Your task to perform on an android device: Do I have any events tomorrow? Image 0: 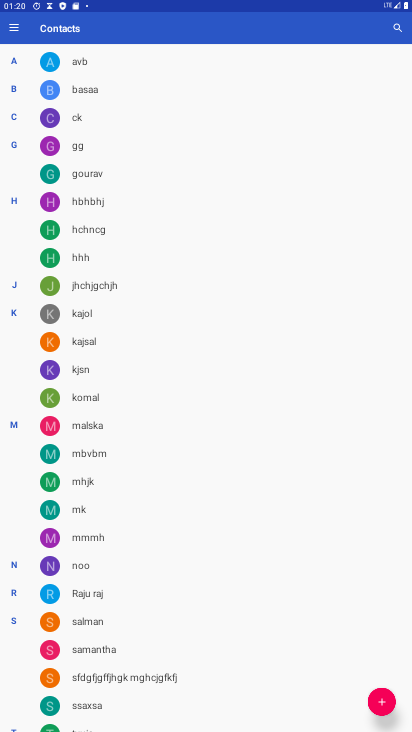
Step 0: press home button
Your task to perform on an android device: Do I have any events tomorrow? Image 1: 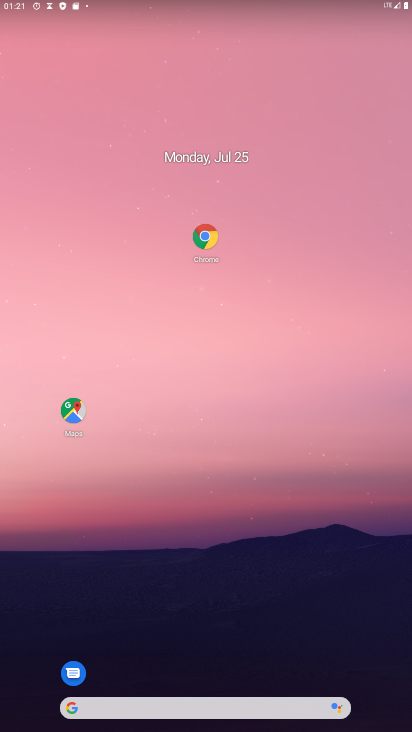
Step 1: drag from (288, 603) to (342, 95)
Your task to perform on an android device: Do I have any events tomorrow? Image 2: 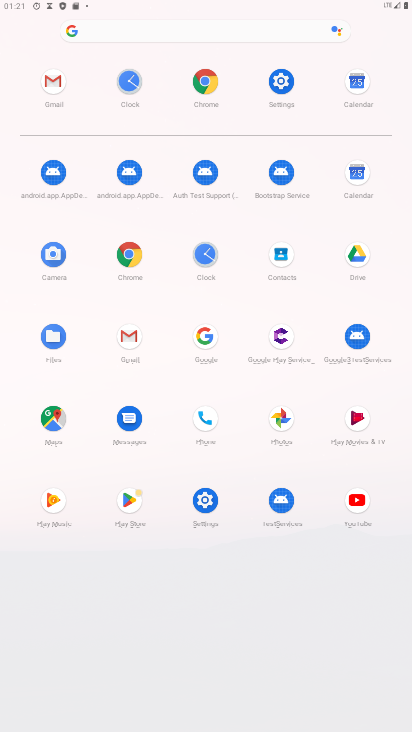
Step 2: click (359, 177)
Your task to perform on an android device: Do I have any events tomorrow? Image 3: 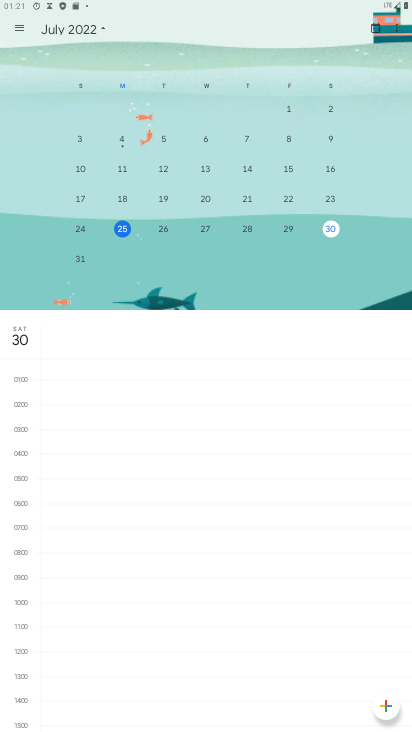
Step 3: drag from (358, 169) to (21, 230)
Your task to perform on an android device: Do I have any events tomorrow? Image 4: 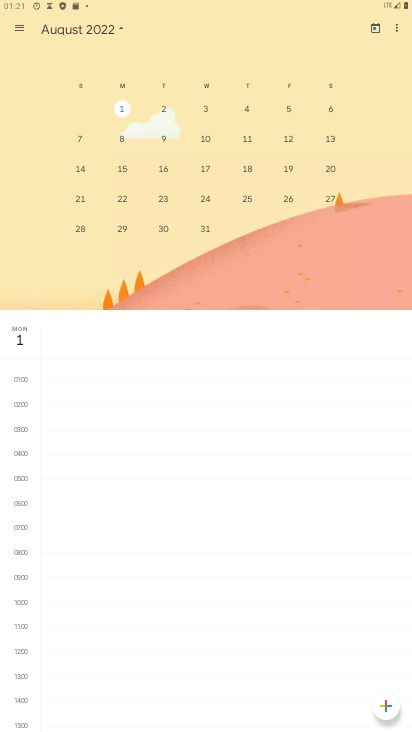
Step 4: drag from (68, 193) to (364, 155)
Your task to perform on an android device: Do I have any events tomorrow? Image 5: 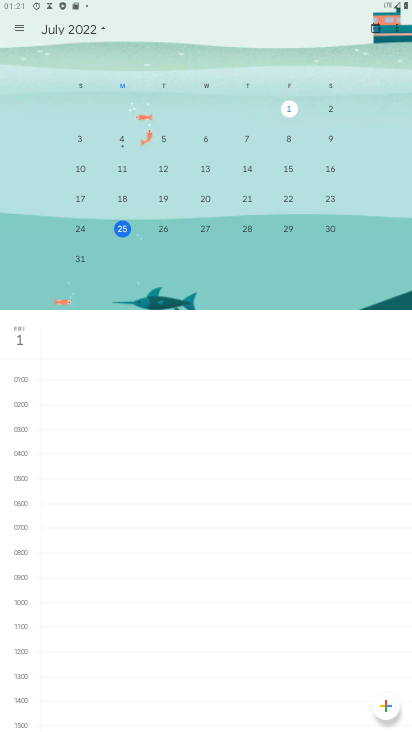
Step 5: click (119, 229)
Your task to perform on an android device: Do I have any events tomorrow? Image 6: 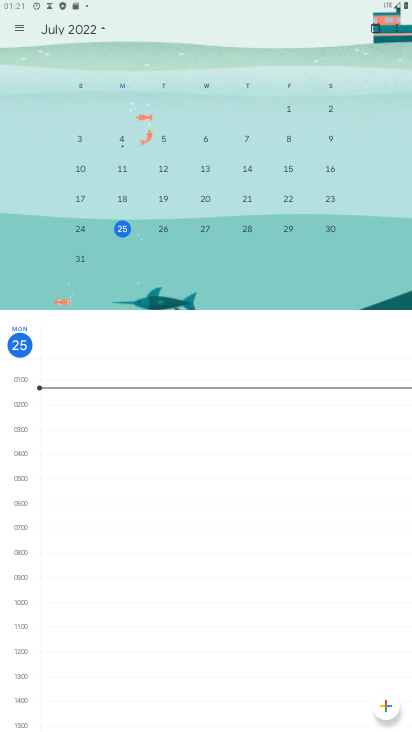
Step 6: click (165, 223)
Your task to perform on an android device: Do I have any events tomorrow? Image 7: 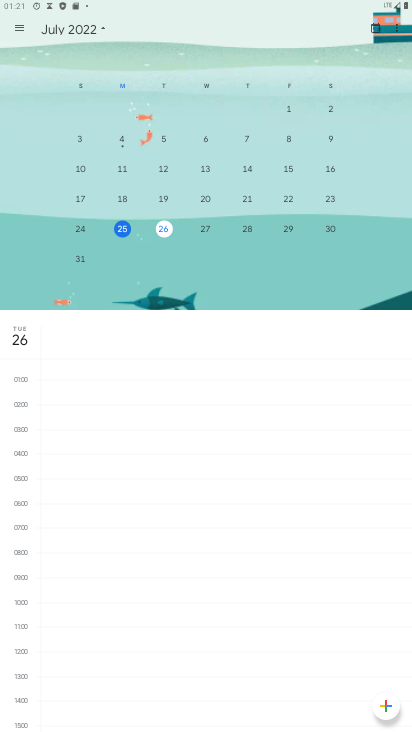
Step 7: task complete